Your task to perform on an android device: uninstall "Grab" Image 0: 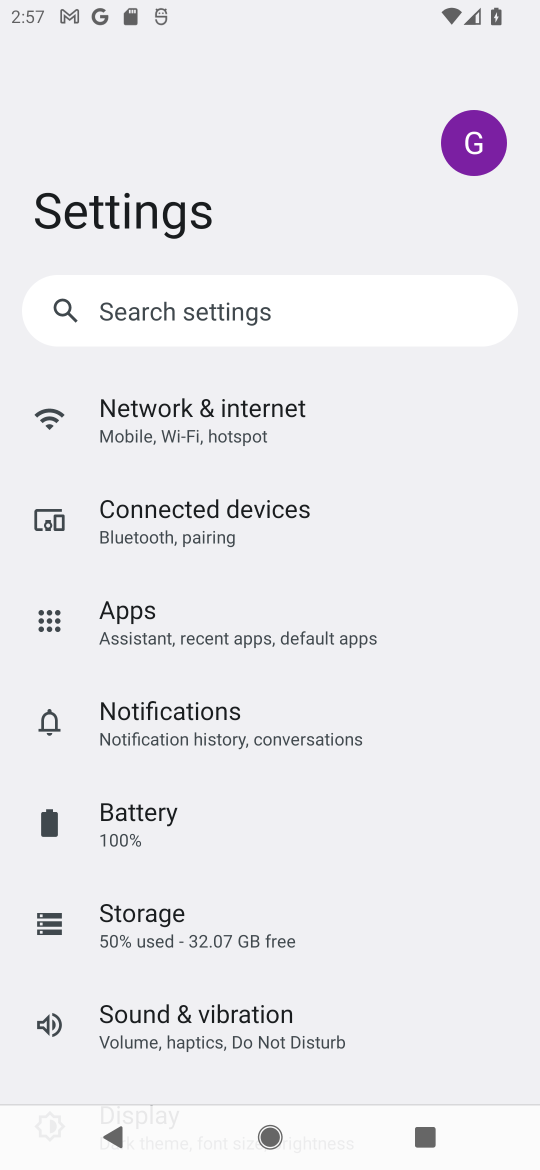
Step 0: drag from (294, 678) to (354, 323)
Your task to perform on an android device: uninstall "Grab" Image 1: 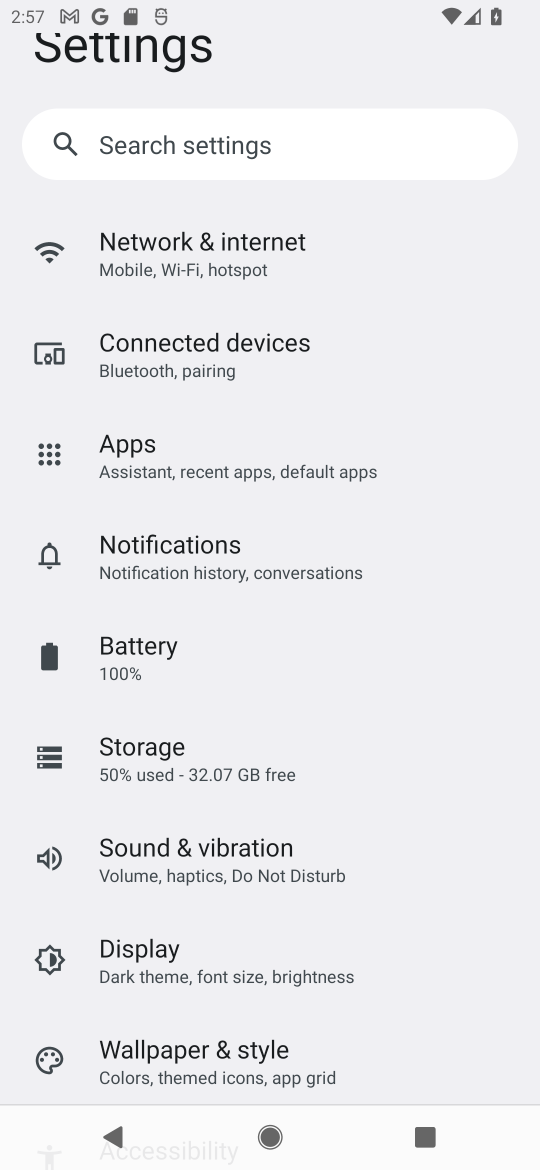
Step 1: press home button
Your task to perform on an android device: uninstall "Grab" Image 2: 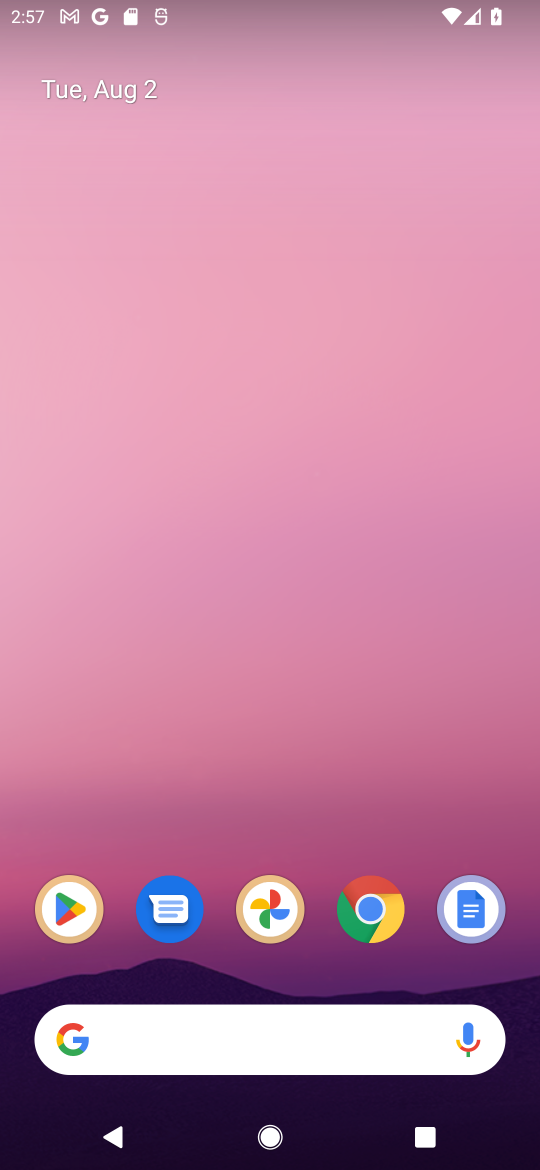
Step 2: click (339, 340)
Your task to perform on an android device: uninstall "Grab" Image 3: 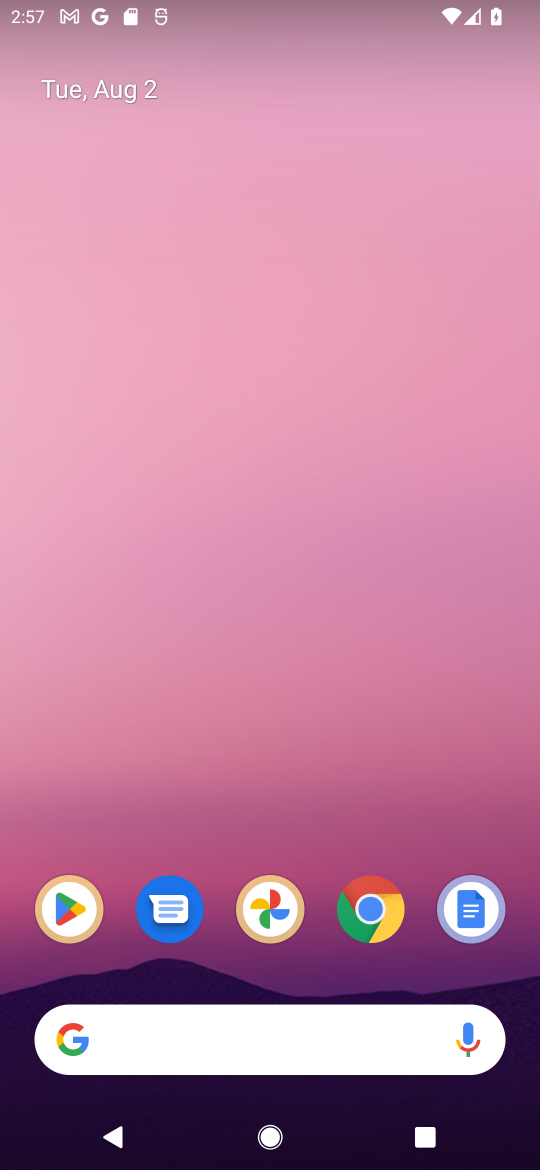
Step 3: drag from (244, 995) to (325, 414)
Your task to perform on an android device: uninstall "Grab" Image 4: 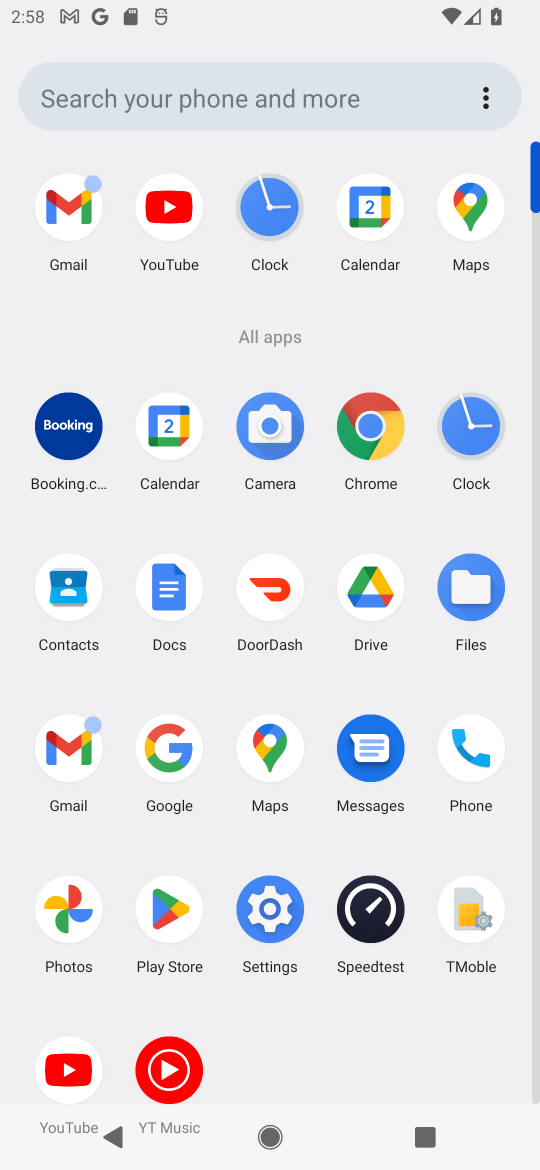
Step 4: click (175, 895)
Your task to perform on an android device: uninstall "Grab" Image 5: 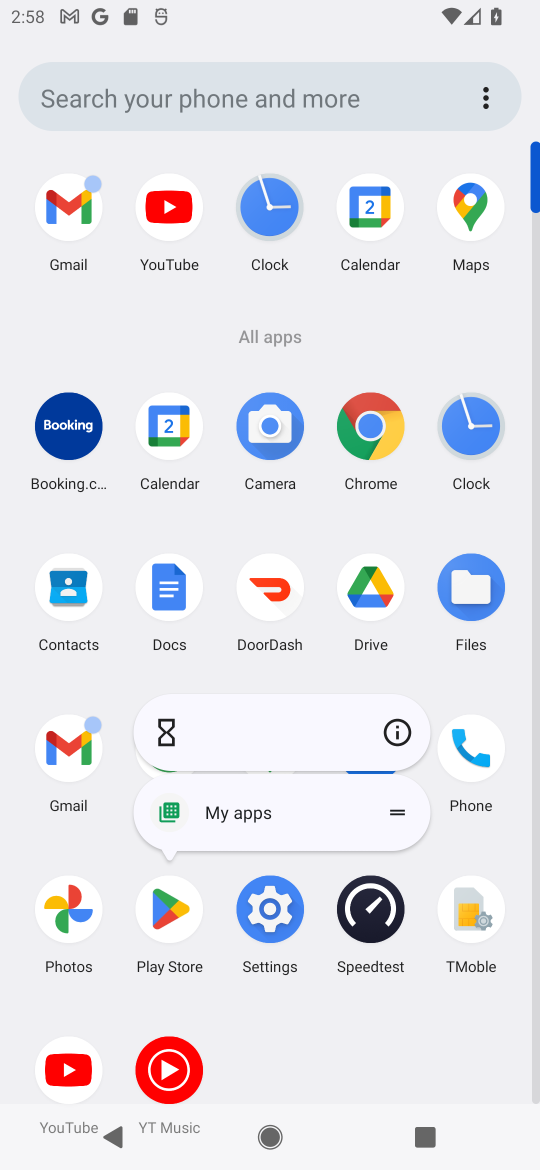
Step 5: click (394, 739)
Your task to perform on an android device: uninstall "Grab" Image 6: 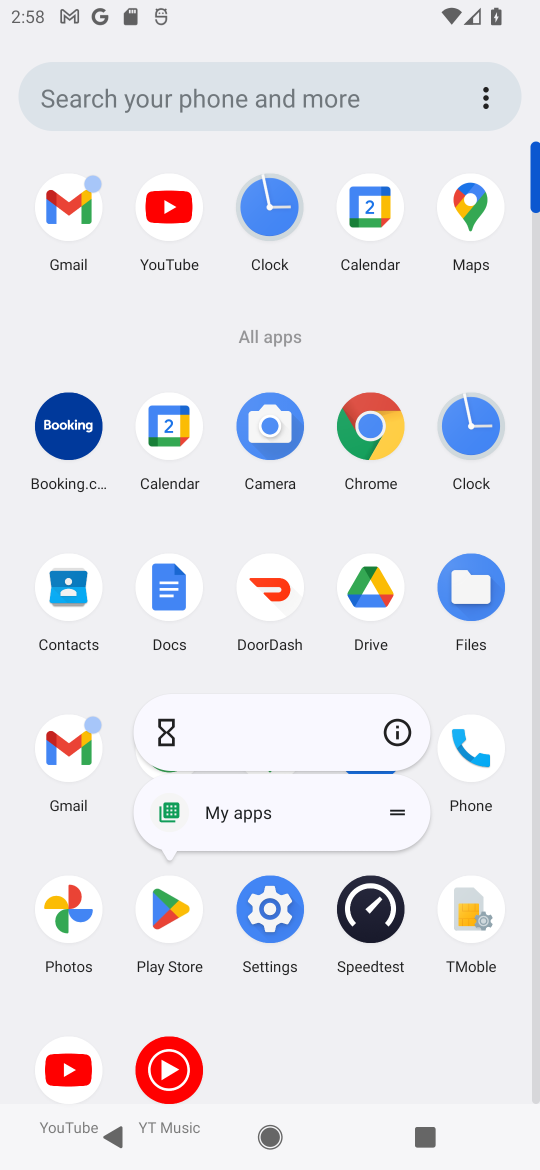
Step 6: click (396, 737)
Your task to perform on an android device: uninstall "Grab" Image 7: 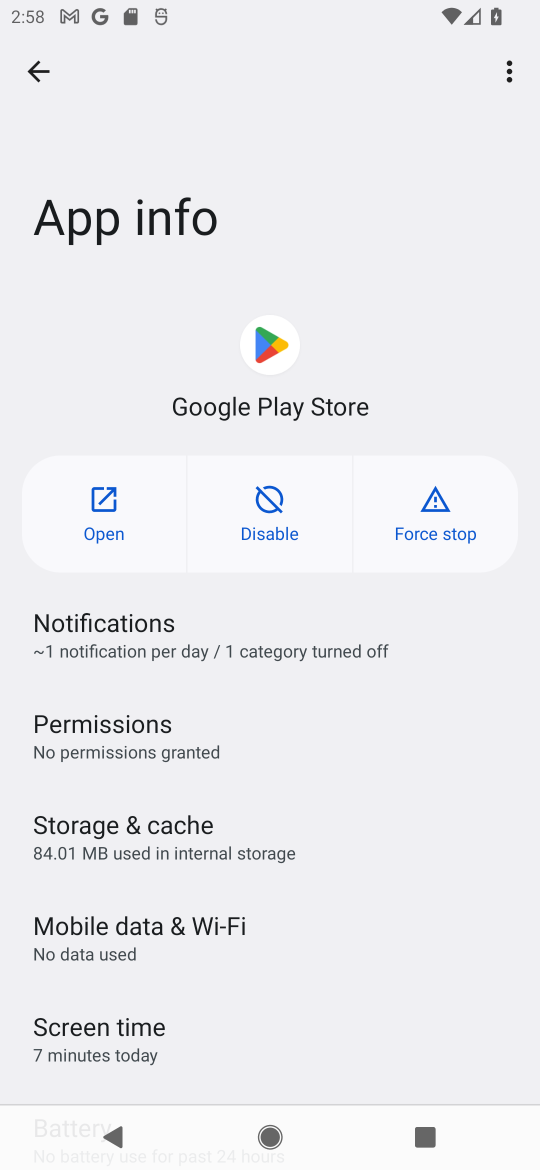
Step 7: click (75, 508)
Your task to perform on an android device: uninstall "Grab" Image 8: 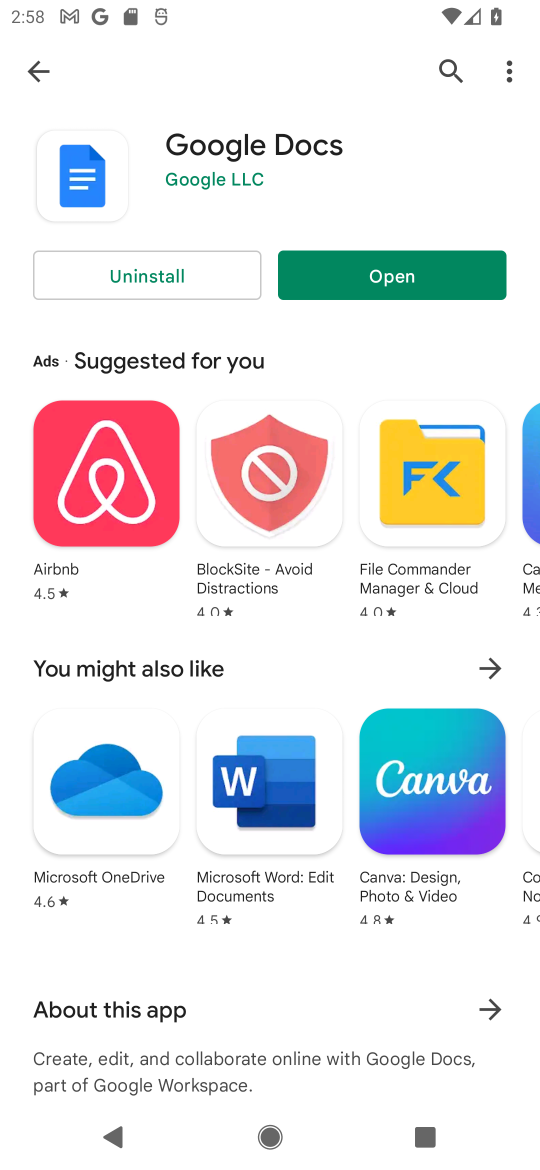
Step 8: click (451, 71)
Your task to perform on an android device: uninstall "Grab" Image 9: 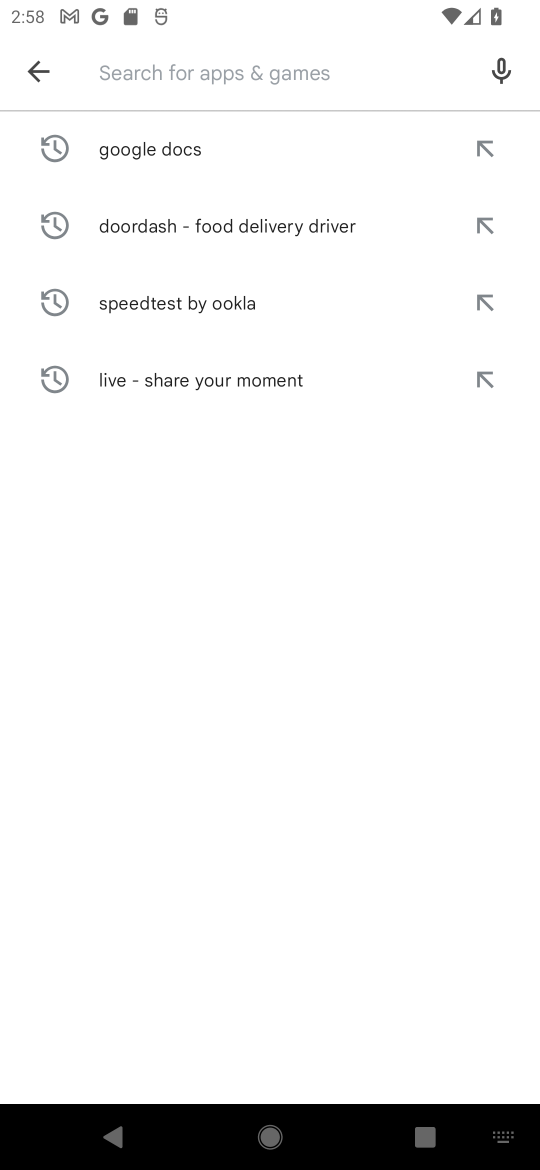
Step 9: type "Grab"
Your task to perform on an android device: uninstall "Grab" Image 10: 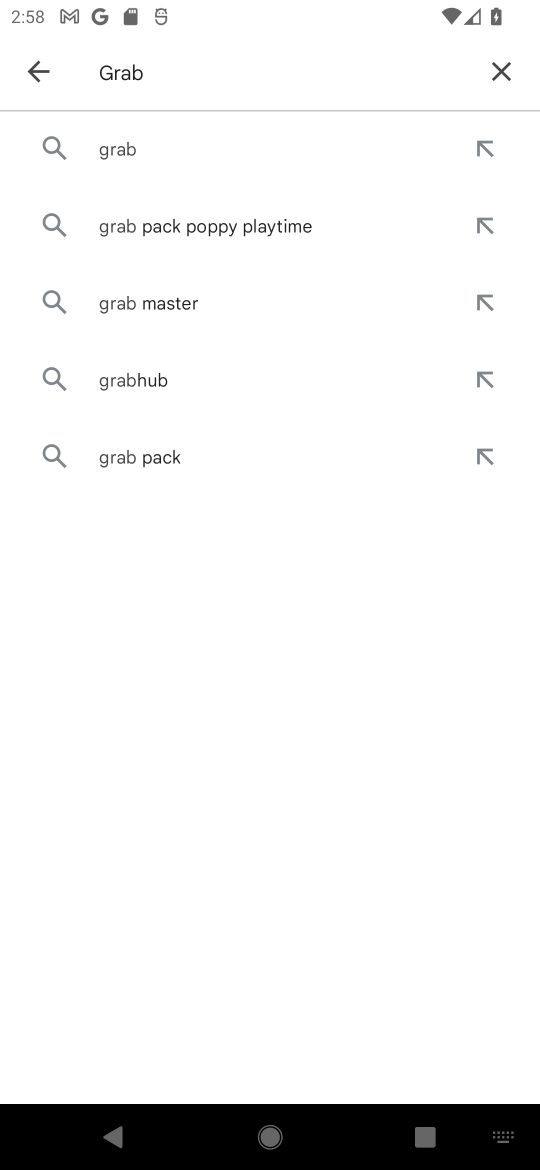
Step 10: click (218, 127)
Your task to perform on an android device: uninstall "Grab" Image 11: 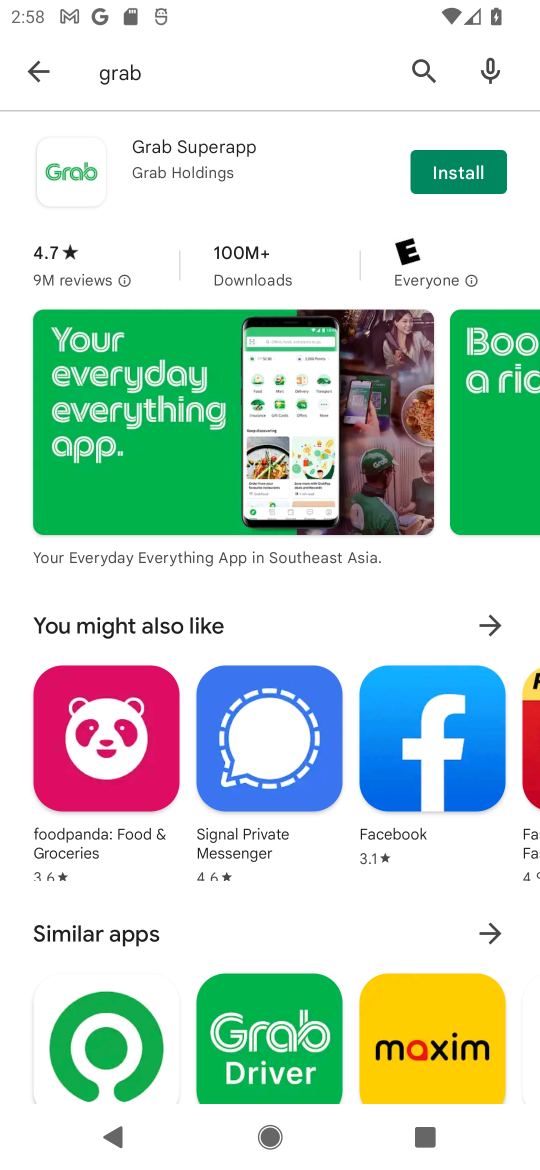
Step 11: click (218, 153)
Your task to perform on an android device: uninstall "Grab" Image 12: 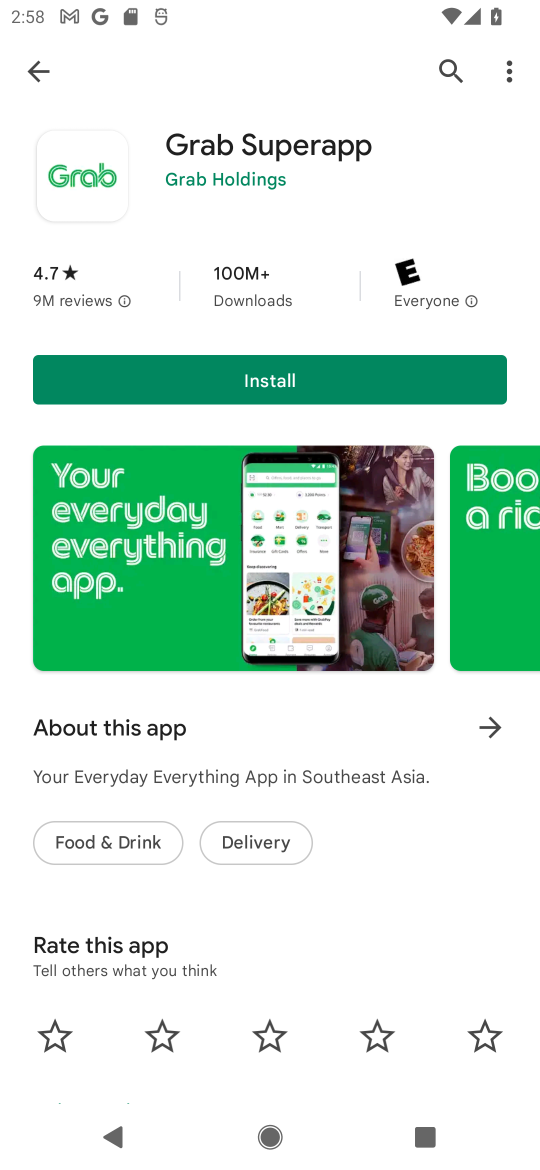
Step 12: task complete